Your task to perform on an android device: allow cookies in the chrome app Image 0: 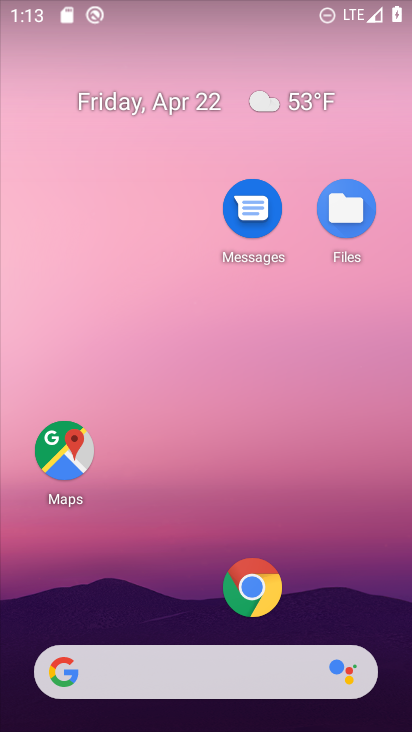
Step 0: click (251, 590)
Your task to perform on an android device: allow cookies in the chrome app Image 1: 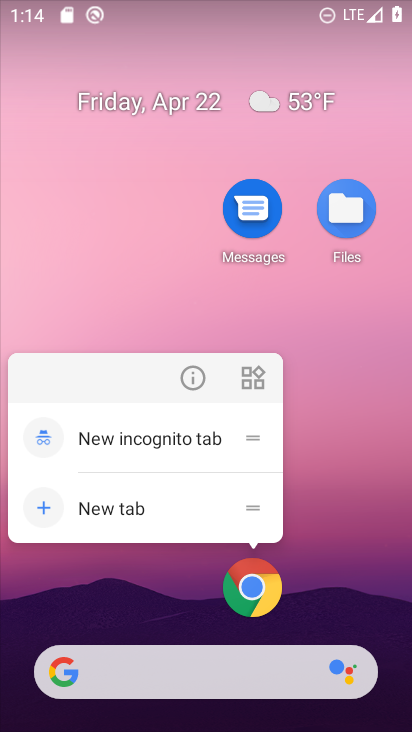
Step 1: click (197, 379)
Your task to perform on an android device: allow cookies in the chrome app Image 2: 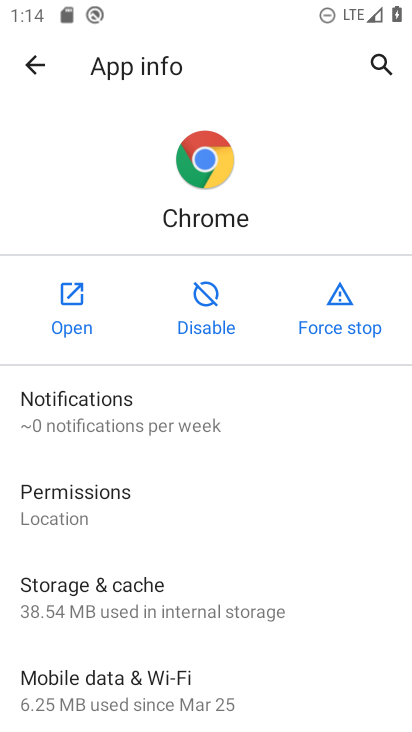
Step 2: click (65, 315)
Your task to perform on an android device: allow cookies in the chrome app Image 3: 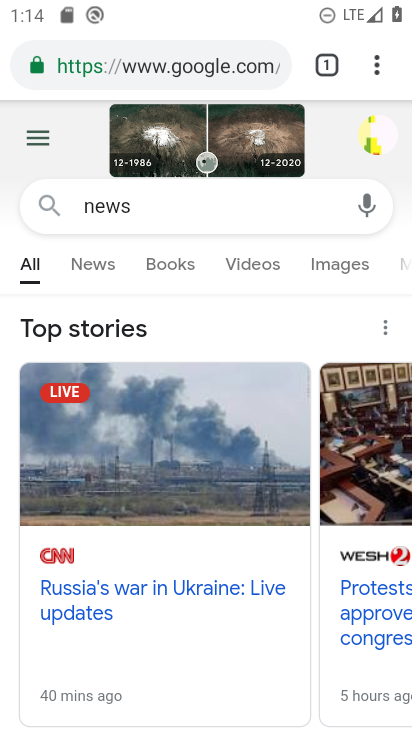
Step 3: click (376, 67)
Your task to perform on an android device: allow cookies in the chrome app Image 4: 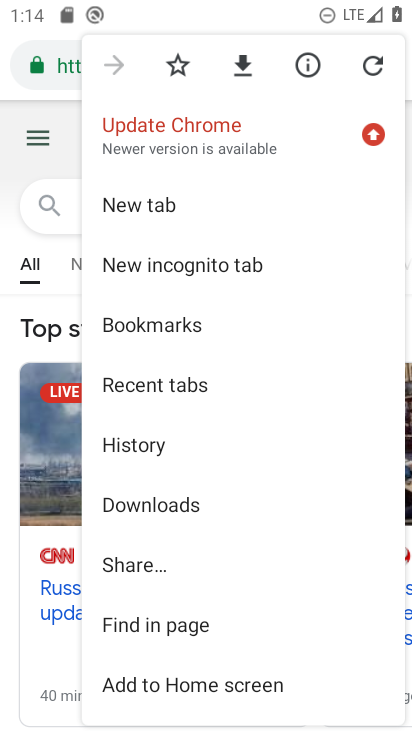
Step 4: drag from (155, 652) to (190, 295)
Your task to perform on an android device: allow cookies in the chrome app Image 5: 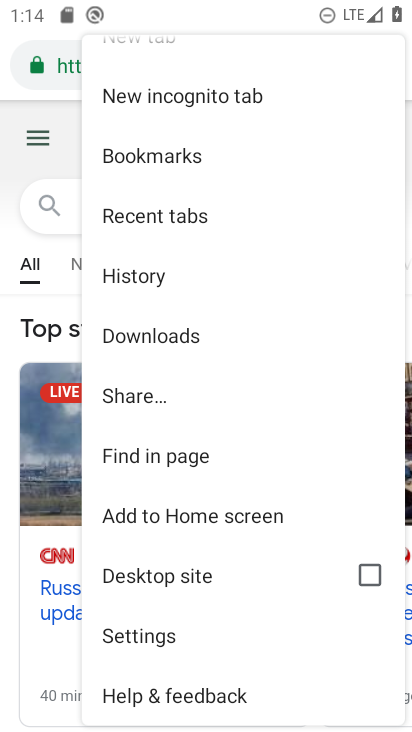
Step 5: click (157, 628)
Your task to perform on an android device: allow cookies in the chrome app Image 6: 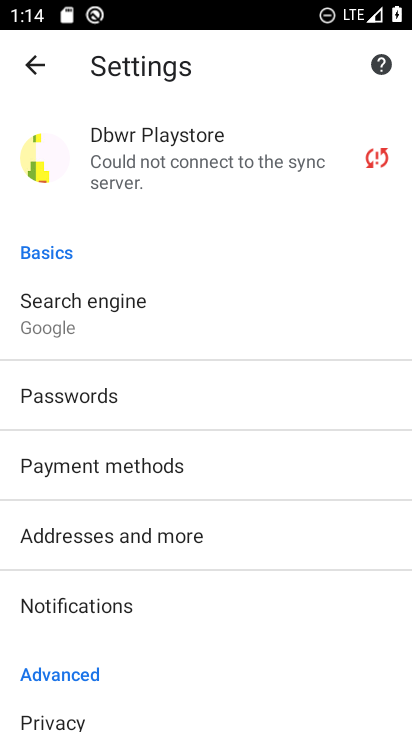
Step 6: drag from (108, 654) to (158, 322)
Your task to perform on an android device: allow cookies in the chrome app Image 7: 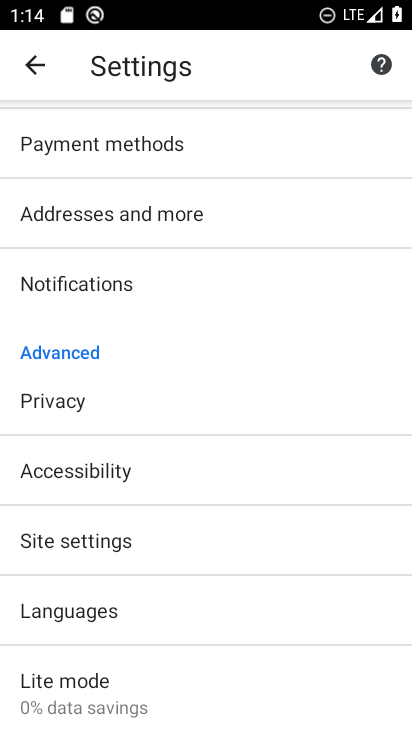
Step 7: click (99, 545)
Your task to perform on an android device: allow cookies in the chrome app Image 8: 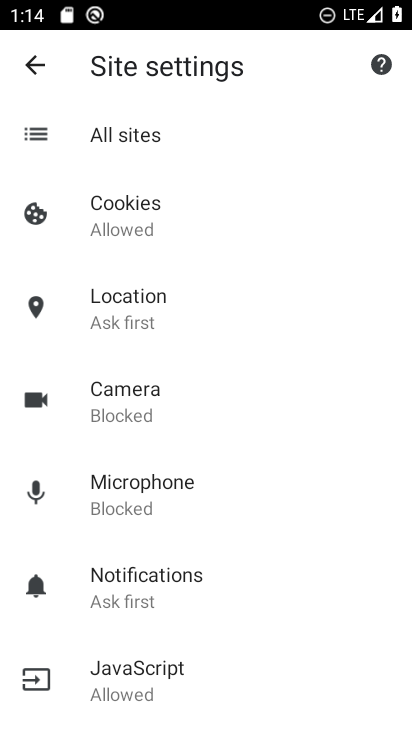
Step 8: task complete